Your task to perform on an android device: visit the assistant section in the google photos Image 0: 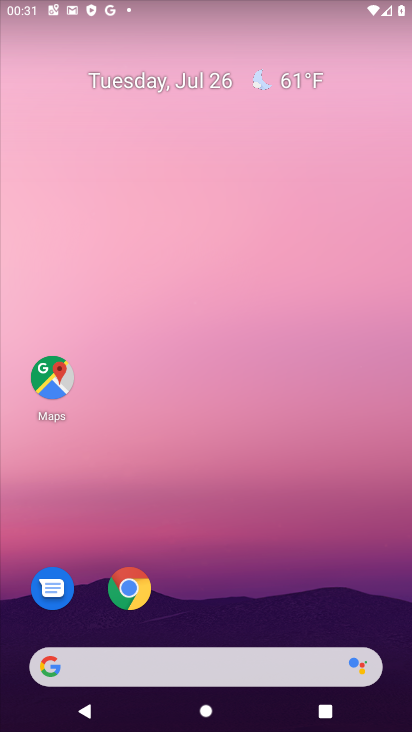
Step 0: press home button
Your task to perform on an android device: visit the assistant section in the google photos Image 1: 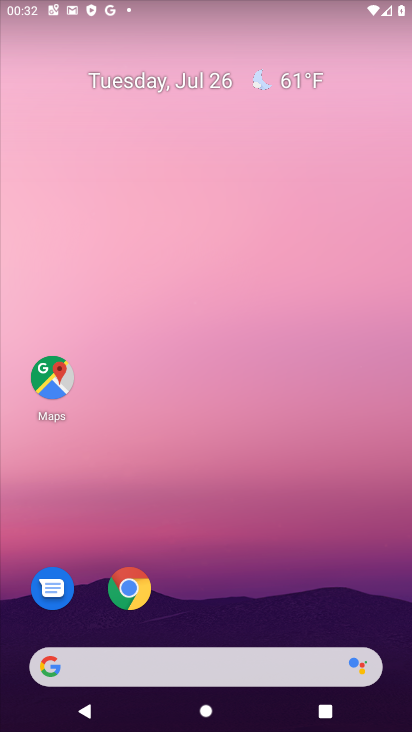
Step 1: drag from (211, 615) to (231, 88)
Your task to perform on an android device: visit the assistant section in the google photos Image 2: 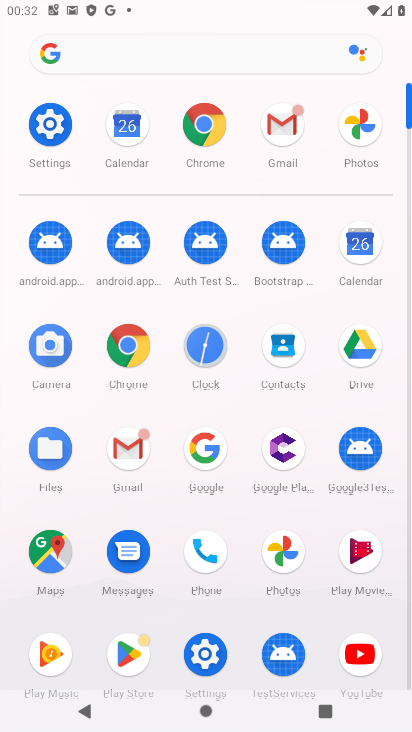
Step 2: click (360, 122)
Your task to perform on an android device: visit the assistant section in the google photos Image 3: 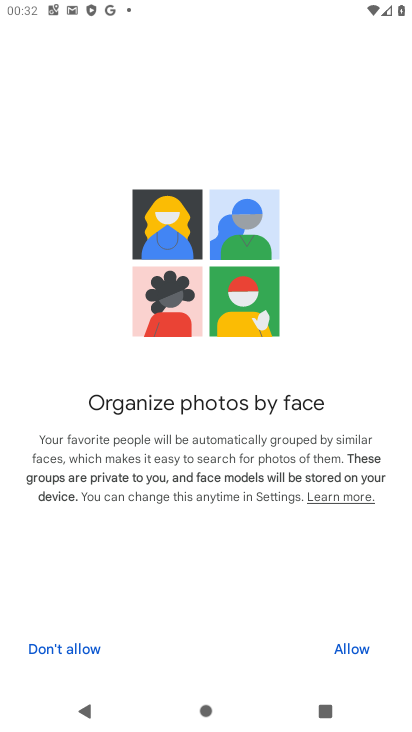
Step 3: click (358, 652)
Your task to perform on an android device: visit the assistant section in the google photos Image 4: 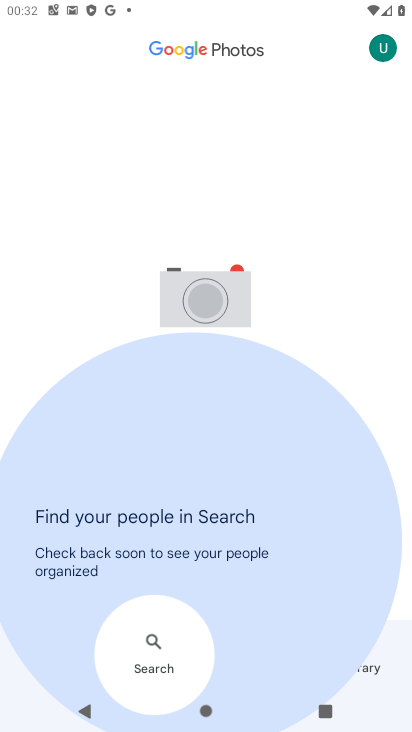
Step 4: click (135, 237)
Your task to perform on an android device: visit the assistant section in the google photos Image 5: 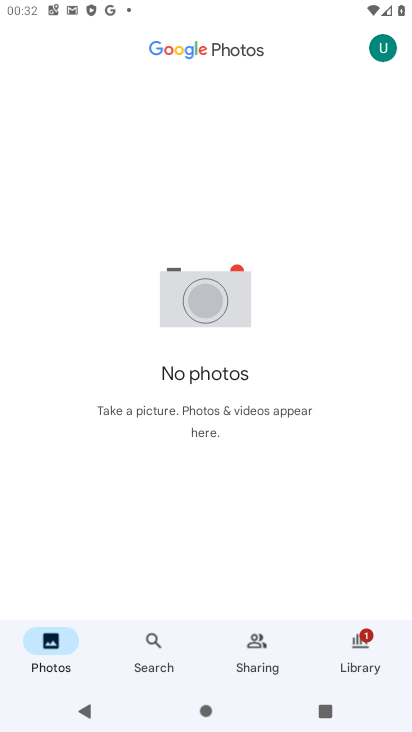
Step 5: click (262, 638)
Your task to perform on an android device: visit the assistant section in the google photos Image 6: 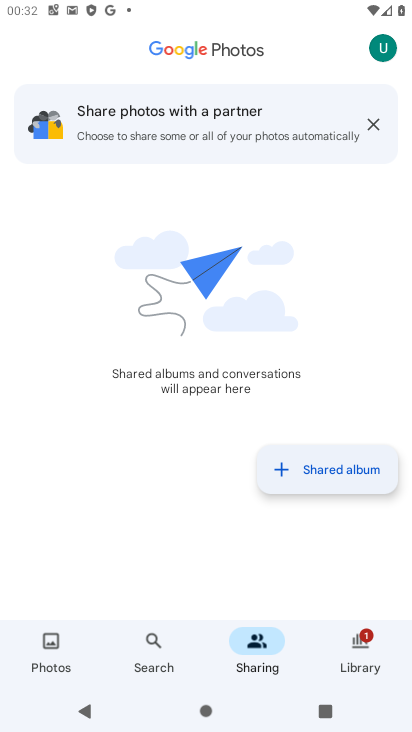
Step 6: click (356, 653)
Your task to perform on an android device: visit the assistant section in the google photos Image 7: 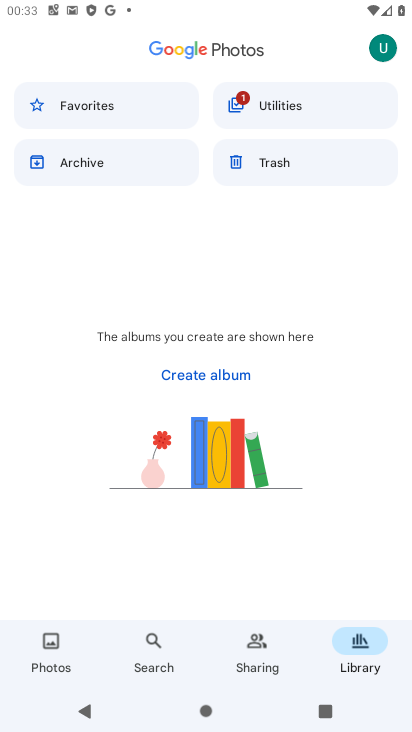
Step 7: click (263, 644)
Your task to perform on an android device: visit the assistant section in the google photos Image 8: 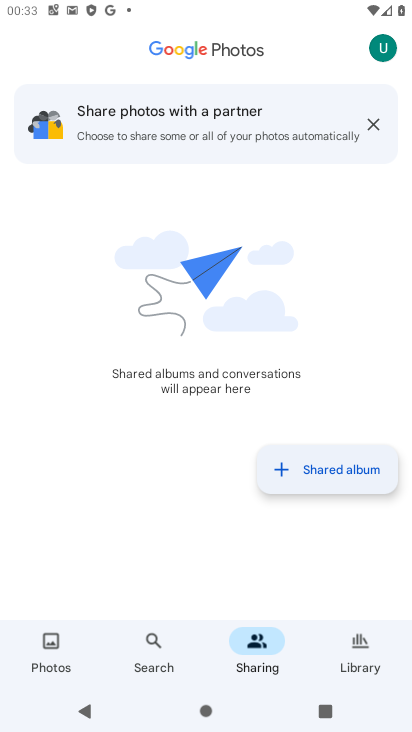
Step 8: click (357, 649)
Your task to perform on an android device: visit the assistant section in the google photos Image 9: 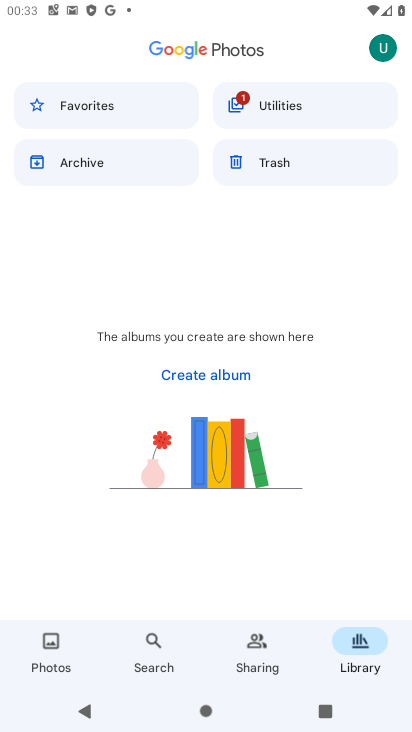
Step 9: click (386, 43)
Your task to perform on an android device: visit the assistant section in the google photos Image 10: 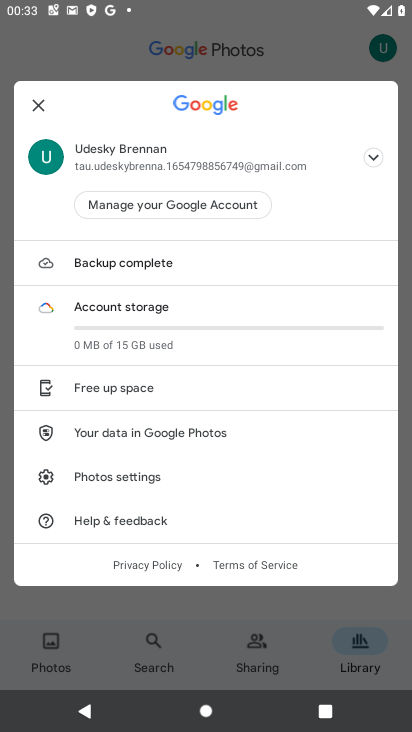
Step 10: task complete